Your task to perform on an android device: turn off picture-in-picture Image 0: 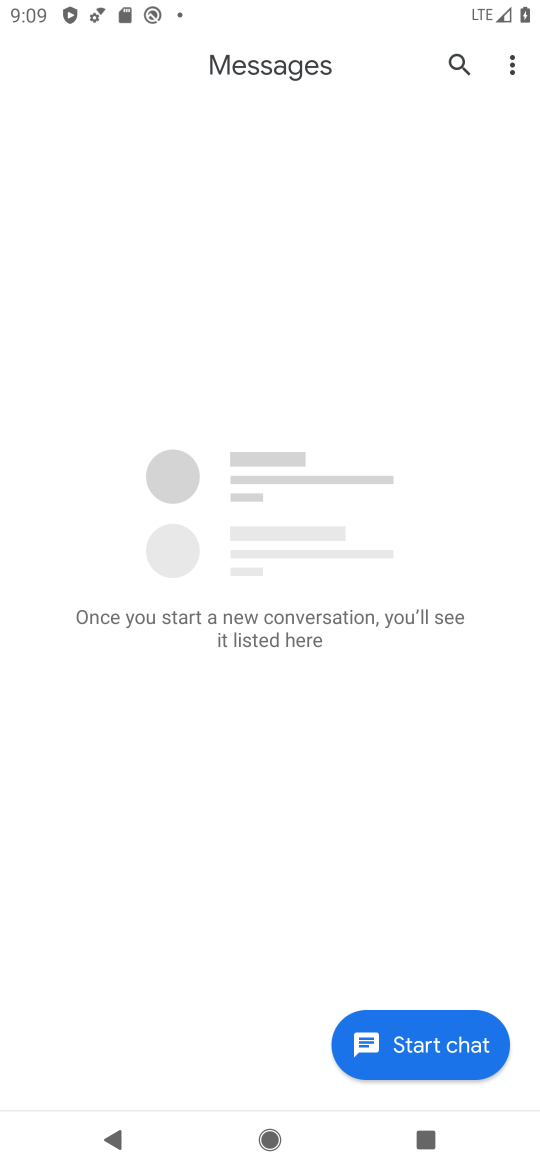
Step 0: press home button
Your task to perform on an android device: turn off picture-in-picture Image 1: 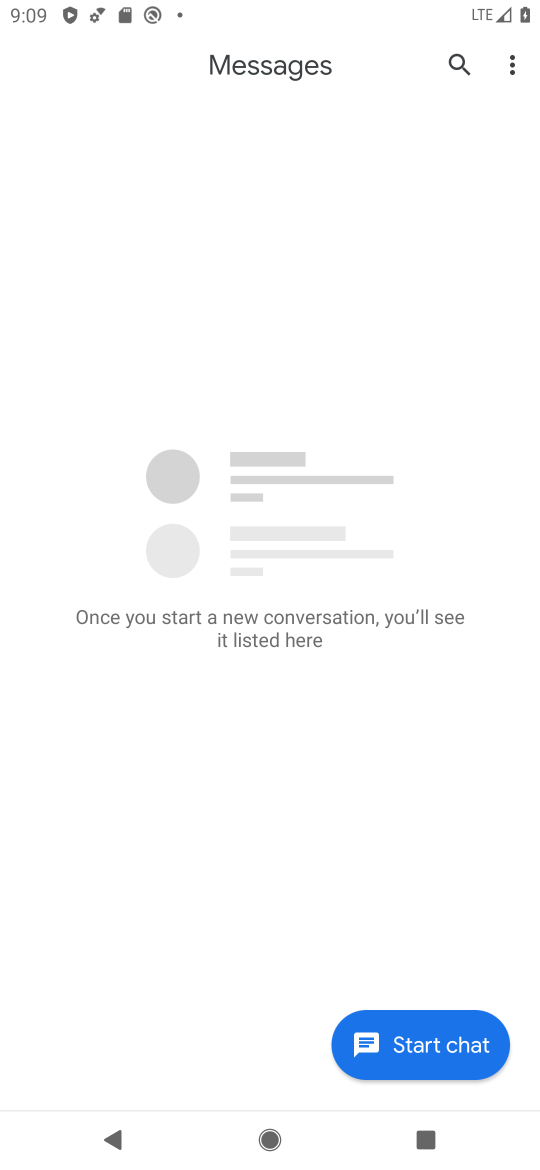
Step 1: press home button
Your task to perform on an android device: turn off picture-in-picture Image 2: 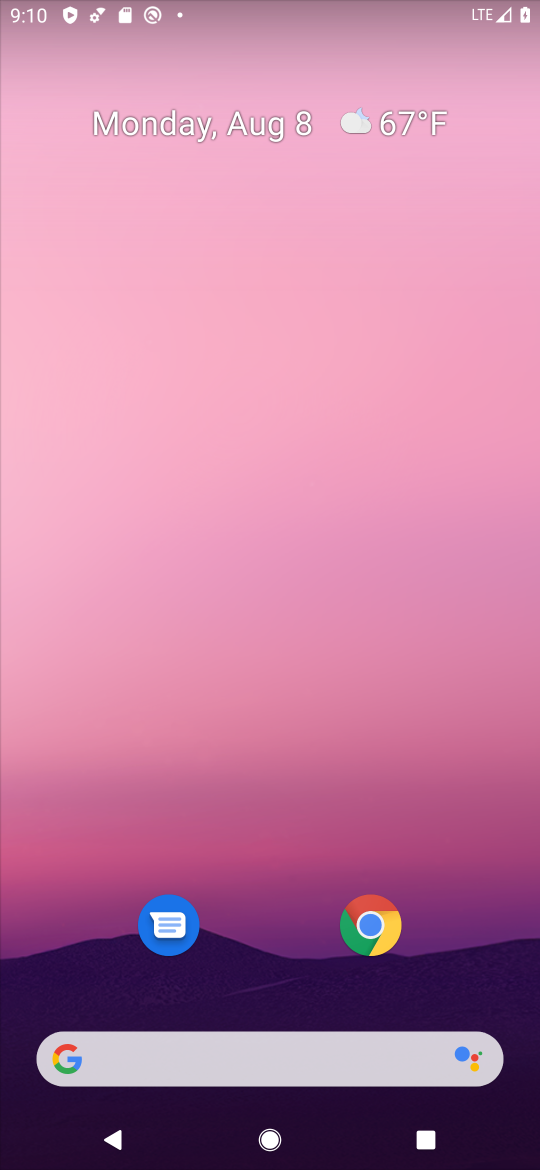
Step 2: click (355, 935)
Your task to perform on an android device: turn off picture-in-picture Image 3: 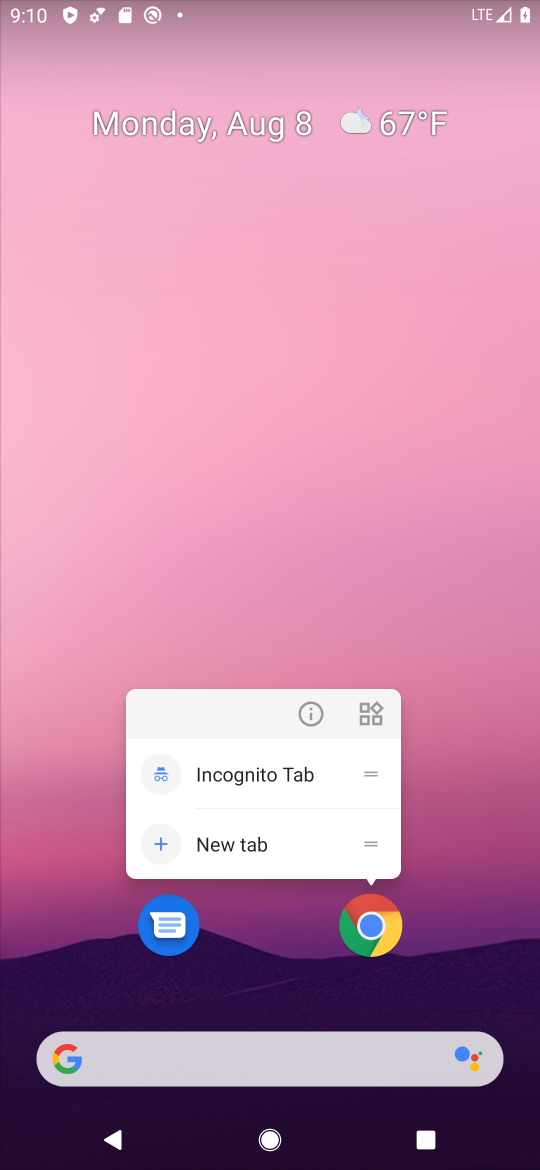
Step 3: click (321, 705)
Your task to perform on an android device: turn off picture-in-picture Image 4: 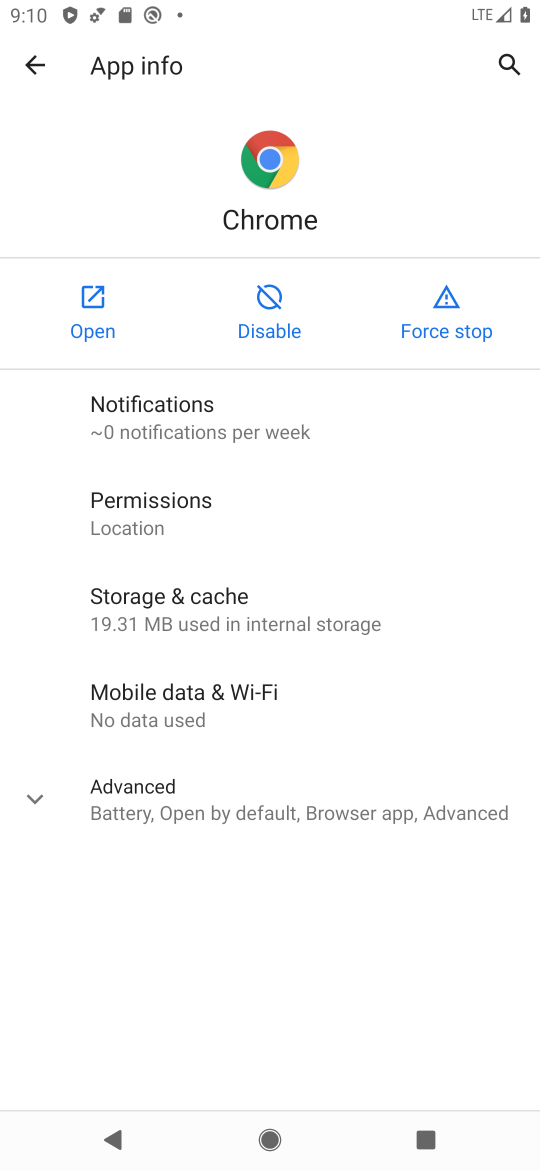
Step 4: click (189, 794)
Your task to perform on an android device: turn off picture-in-picture Image 5: 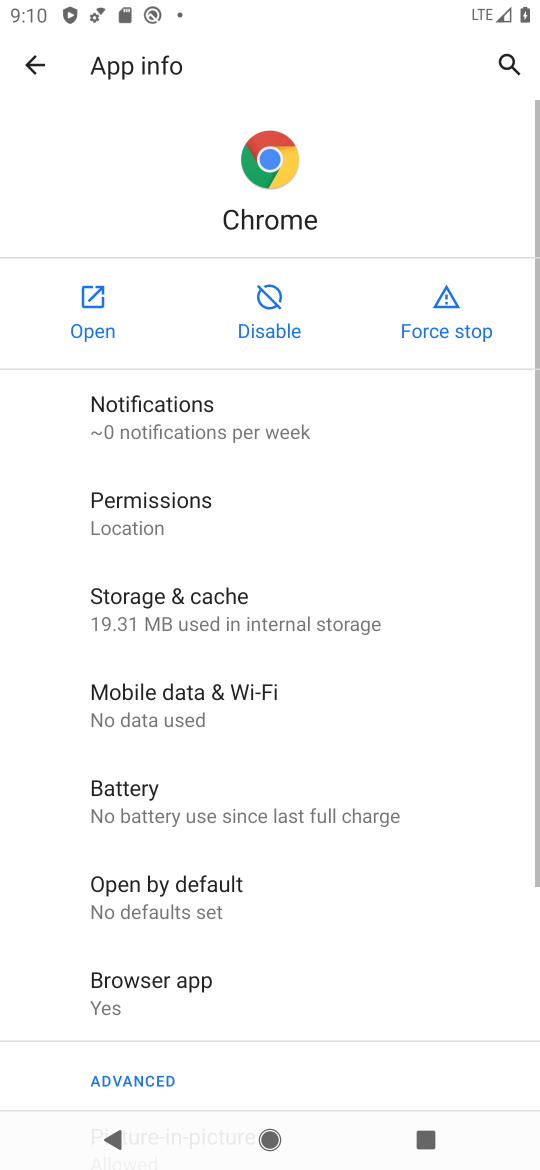
Step 5: drag from (278, 829) to (292, 279)
Your task to perform on an android device: turn off picture-in-picture Image 6: 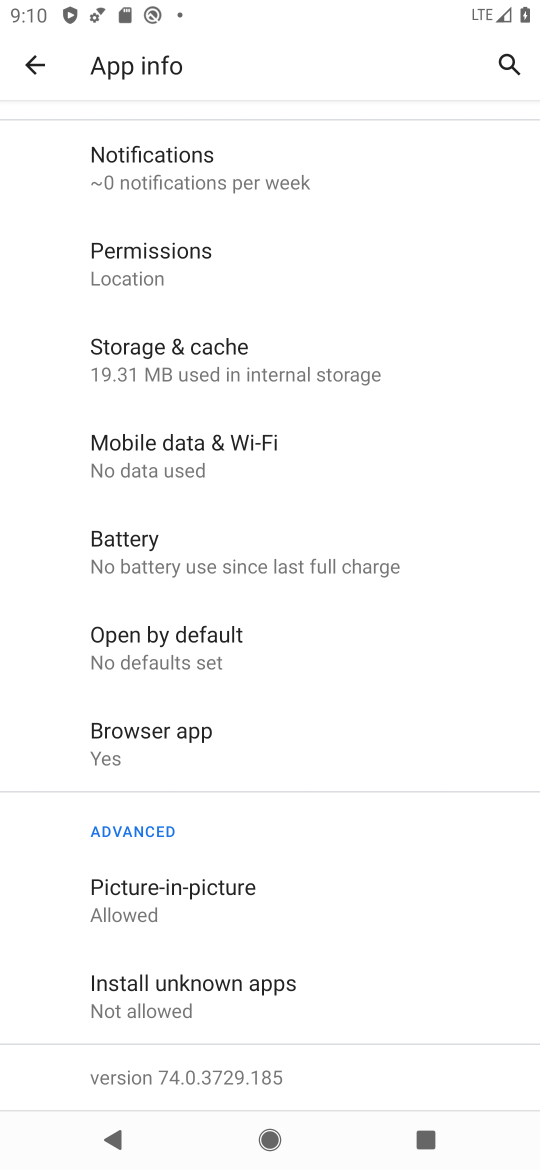
Step 6: click (203, 898)
Your task to perform on an android device: turn off picture-in-picture Image 7: 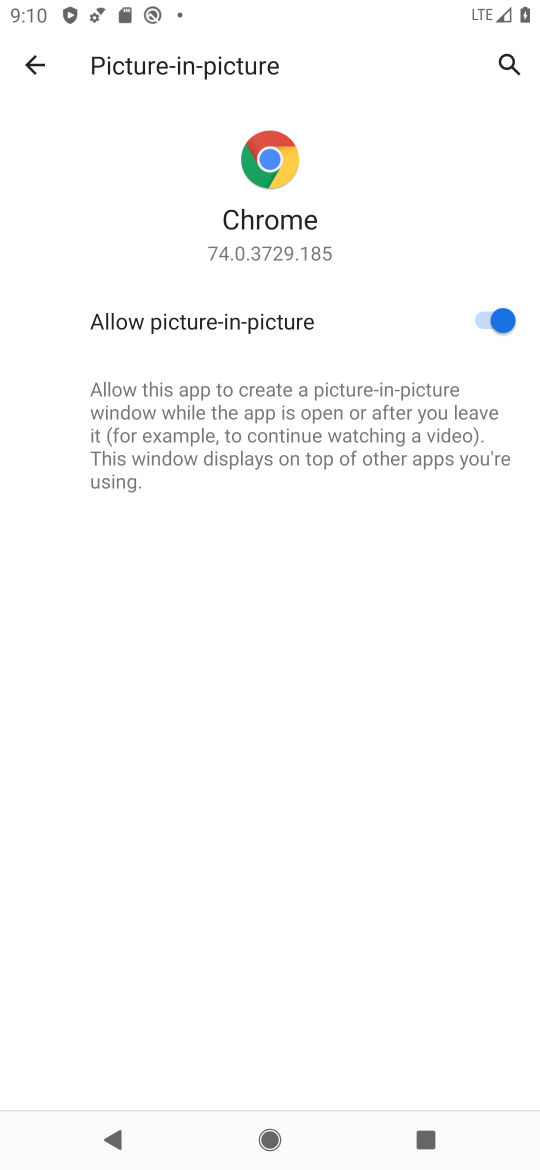
Step 7: click (469, 319)
Your task to perform on an android device: turn off picture-in-picture Image 8: 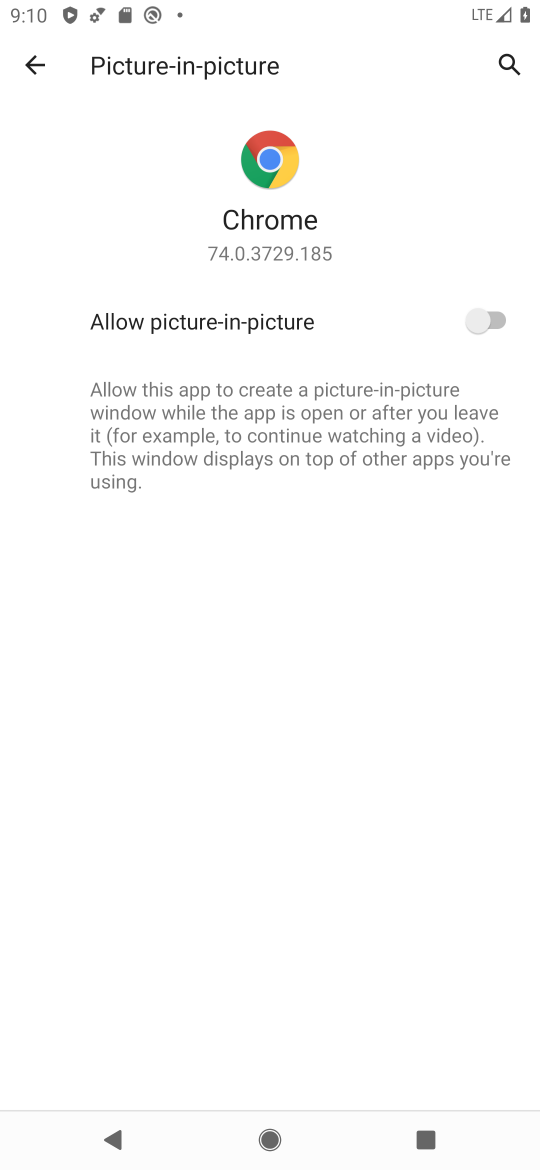
Step 8: task complete